Your task to perform on an android device: Go to Maps Image 0: 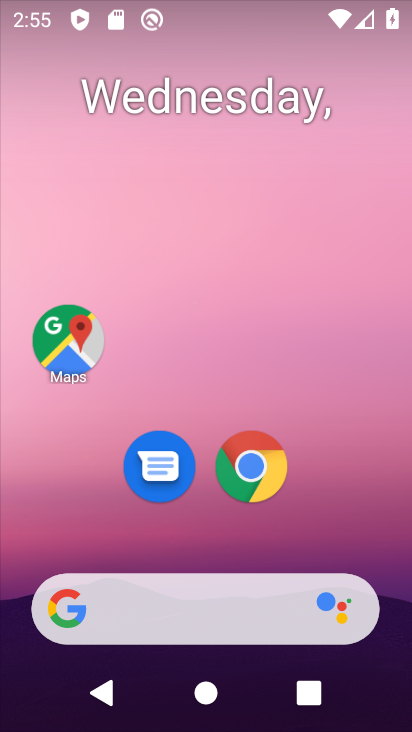
Step 0: click (61, 336)
Your task to perform on an android device: Go to Maps Image 1: 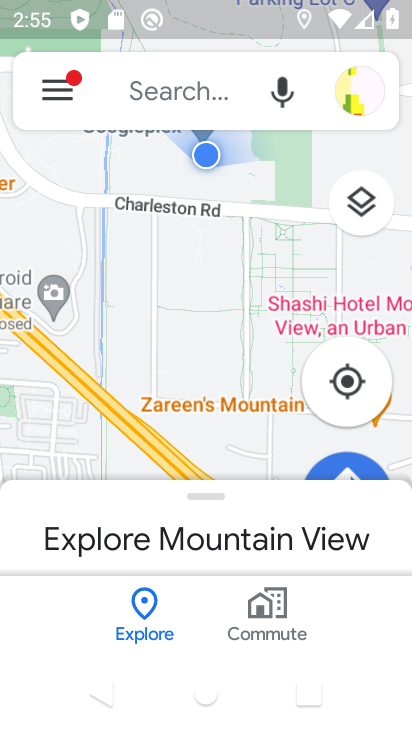
Step 1: task complete